Your task to perform on an android device: Open Android settings Image 0: 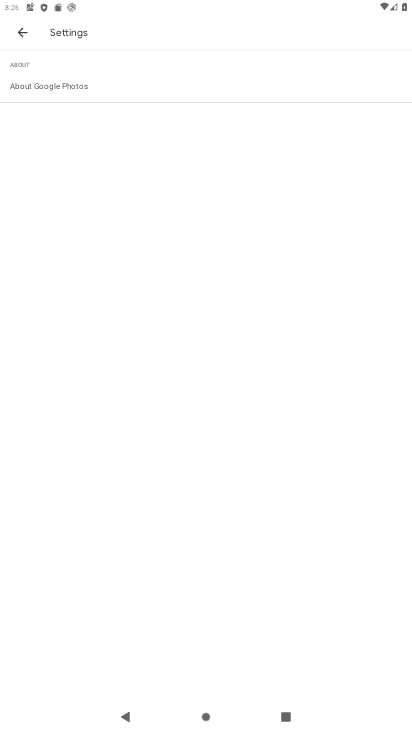
Step 0: press home button
Your task to perform on an android device: Open Android settings Image 1: 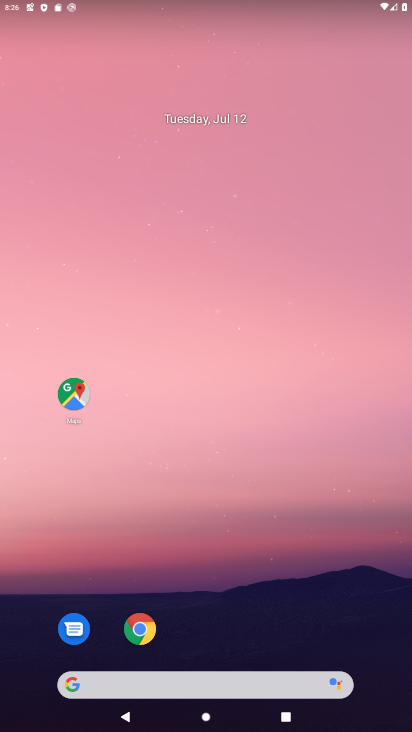
Step 1: drag from (205, 646) to (200, 187)
Your task to perform on an android device: Open Android settings Image 2: 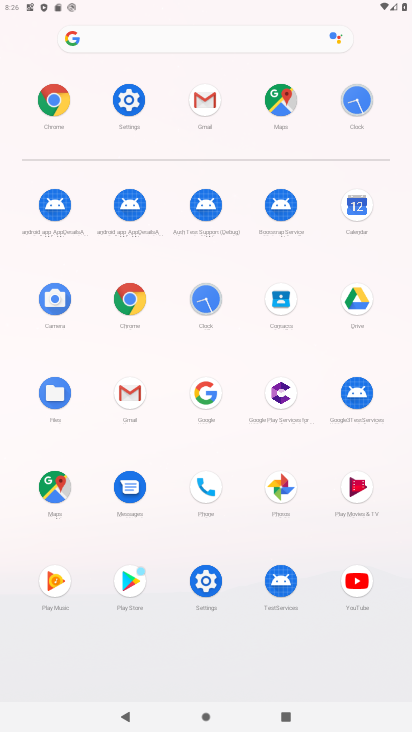
Step 2: click (132, 93)
Your task to perform on an android device: Open Android settings Image 3: 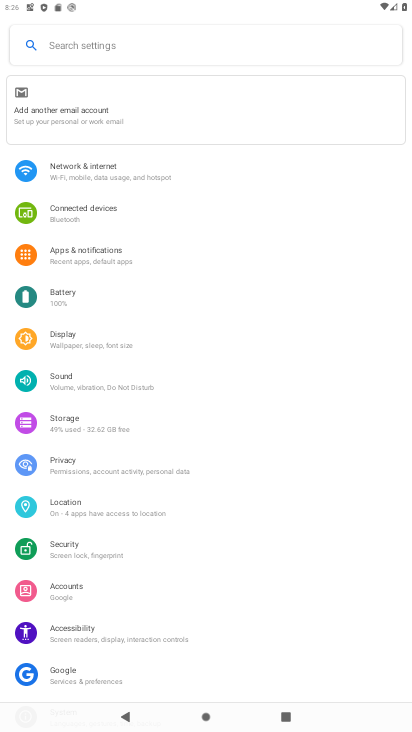
Step 3: task complete